Your task to perform on an android device: Open Google Maps Image 0: 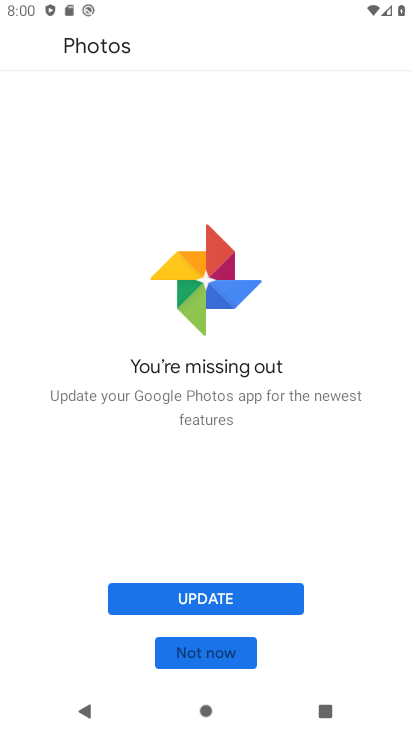
Step 0: press back button
Your task to perform on an android device: Open Google Maps Image 1: 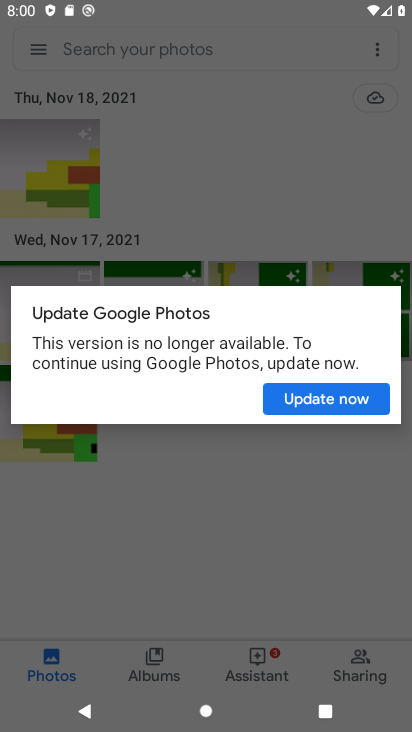
Step 1: press home button
Your task to perform on an android device: Open Google Maps Image 2: 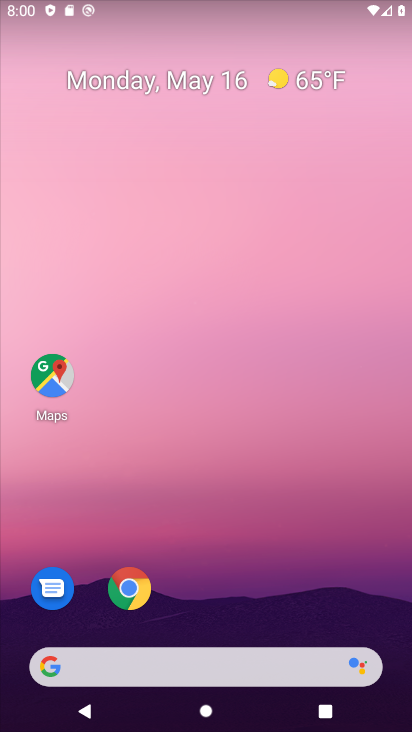
Step 2: drag from (307, 609) to (373, 113)
Your task to perform on an android device: Open Google Maps Image 3: 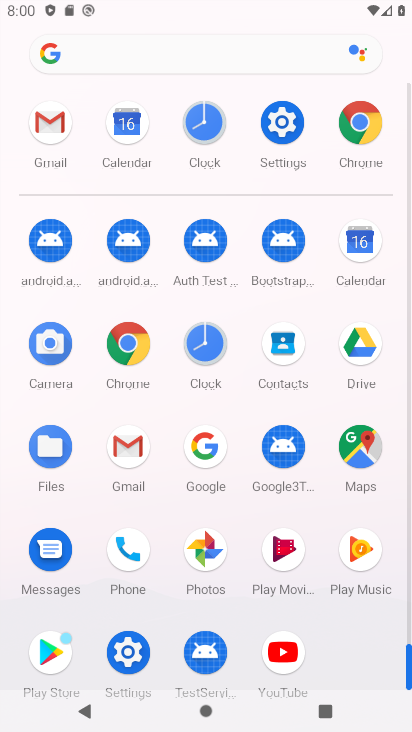
Step 3: click (365, 450)
Your task to perform on an android device: Open Google Maps Image 4: 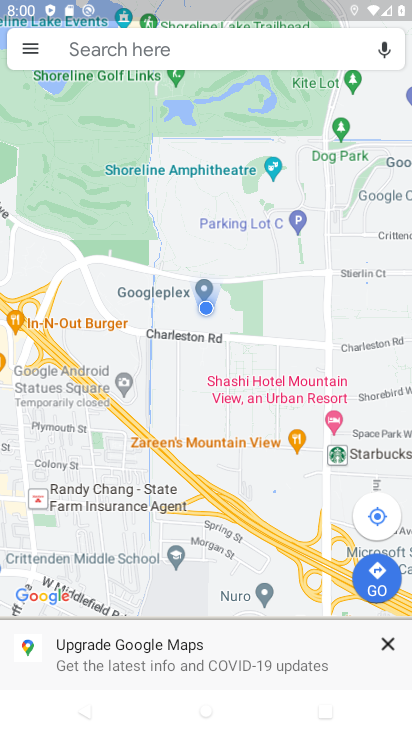
Step 4: task complete